Your task to perform on an android device: turn pop-ups on in chrome Image 0: 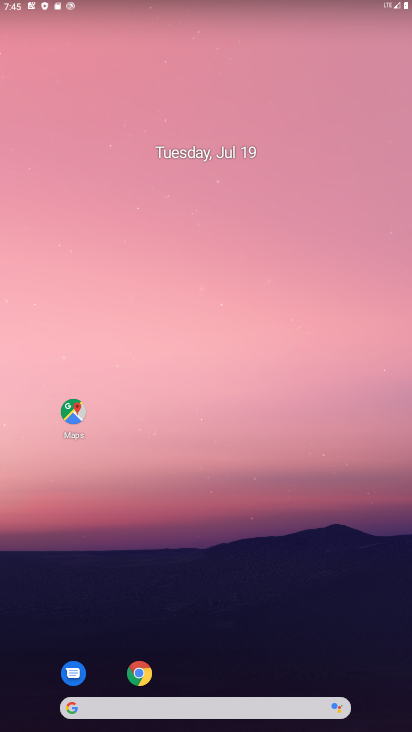
Step 0: drag from (333, 668) to (246, 11)
Your task to perform on an android device: turn pop-ups on in chrome Image 1: 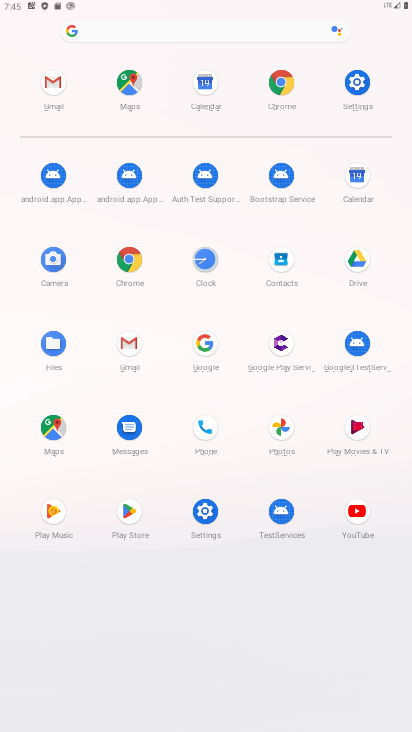
Step 1: click (123, 263)
Your task to perform on an android device: turn pop-ups on in chrome Image 2: 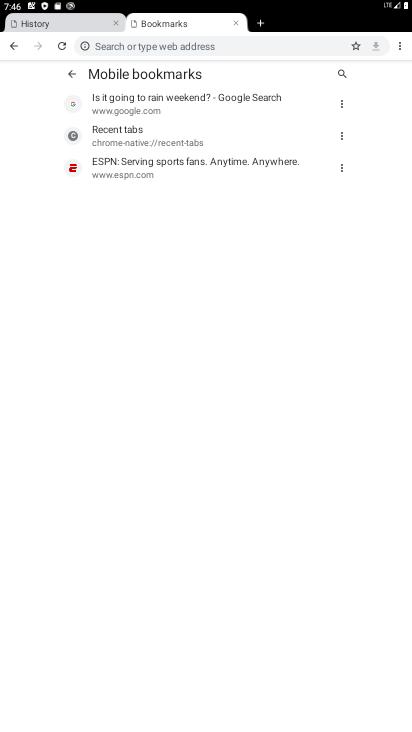
Step 2: click (402, 45)
Your task to perform on an android device: turn pop-ups on in chrome Image 3: 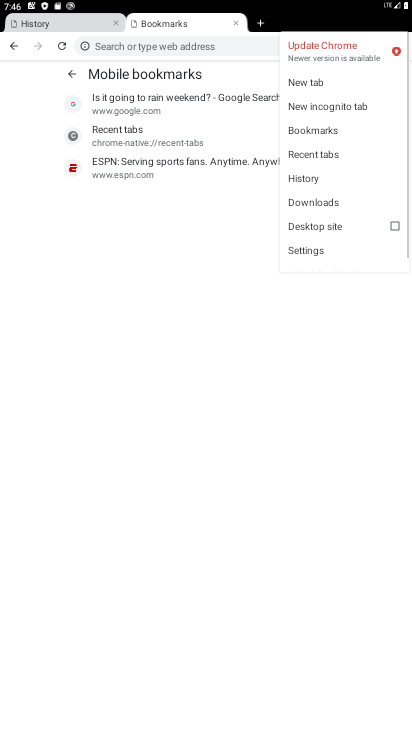
Step 3: click (304, 249)
Your task to perform on an android device: turn pop-ups on in chrome Image 4: 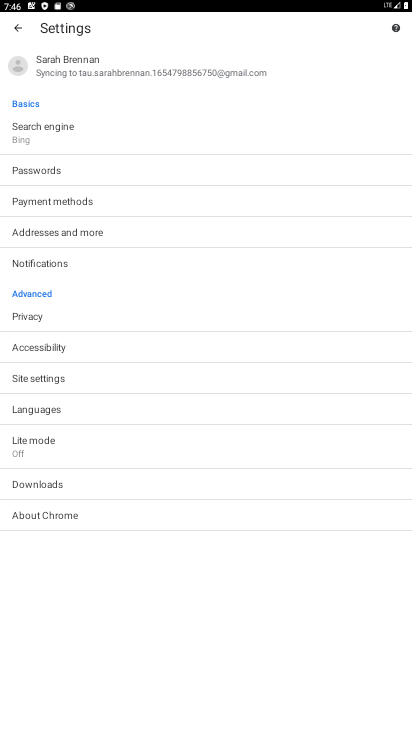
Step 4: click (55, 384)
Your task to perform on an android device: turn pop-ups on in chrome Image 5: 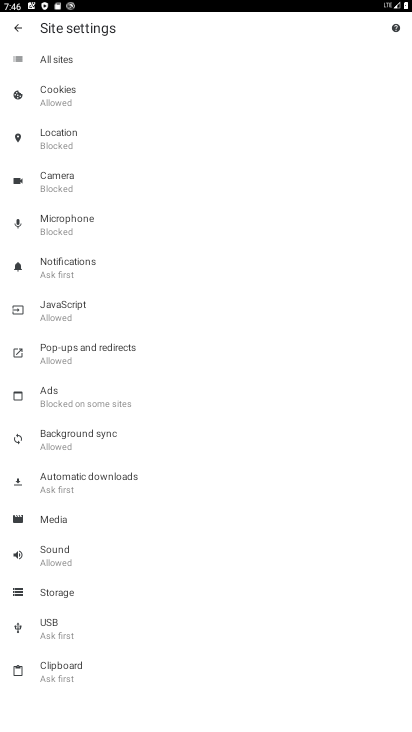
Step 5: click (107, 345)
Your task to perform on an android device: turn pop-ups on in chrome Image 6: 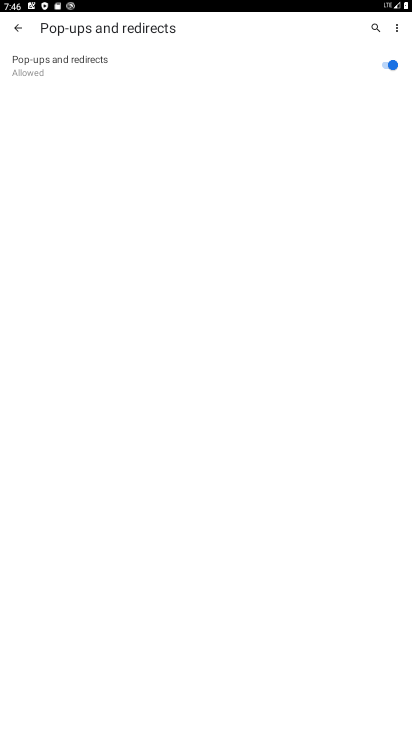
Step 6: task complete